Your task to perform on an android device: Go to privacy settings Image 0: 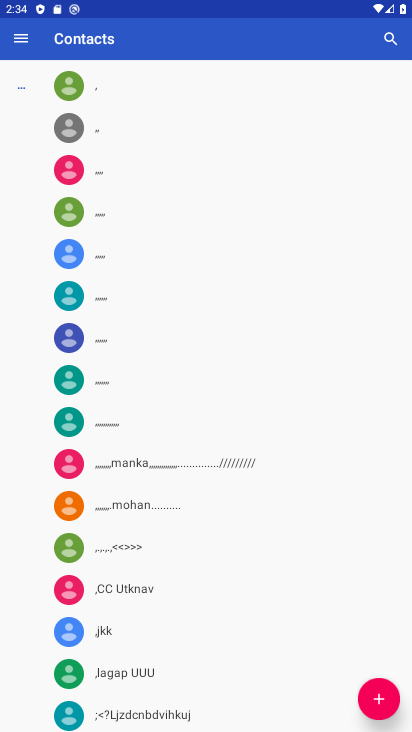
Step 0: press home button
Your task to perform on an android device: Go to privacy settings Image 1: 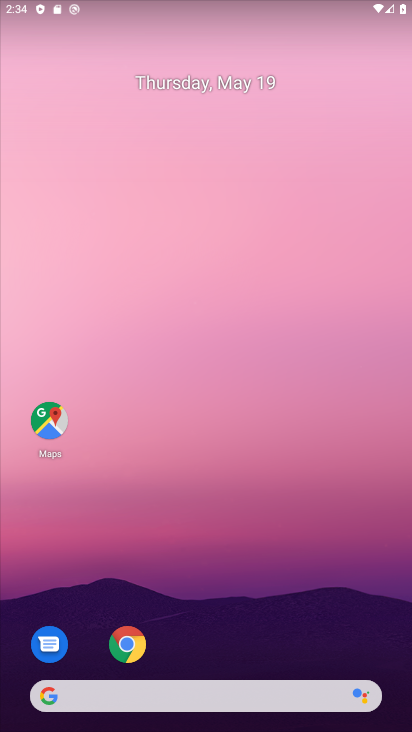
Step 1: drag from (239, 549) to (252, 201)
Your task to perform on an android device: Go to privacy settings Image 2: 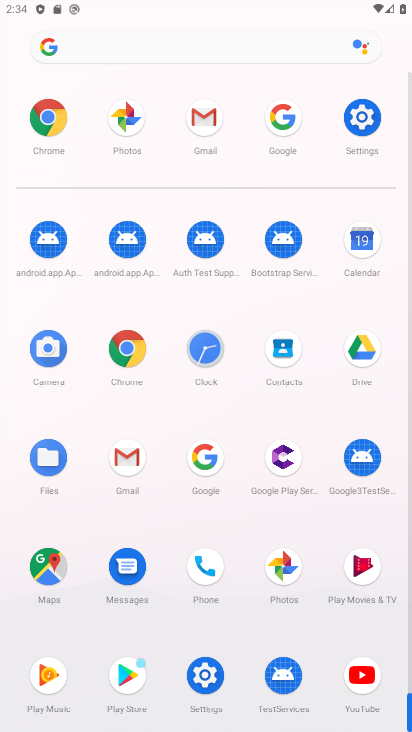
Step 2: click (351, 116)
Your task to perform on an android device: Go to privacy settings Image 3: 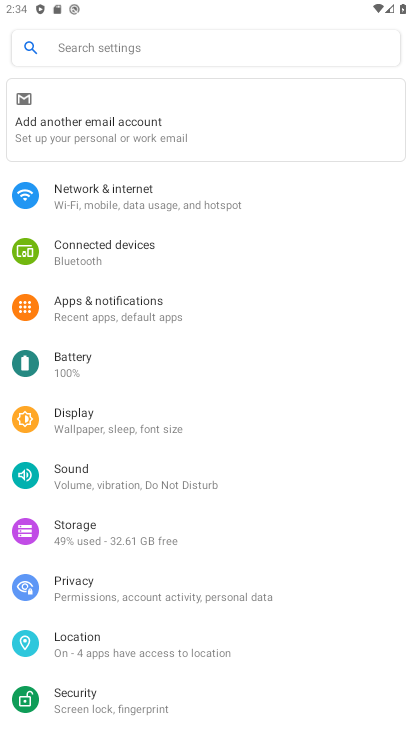
Step 3: click (192, 596)
Your task to perform on an android device: Go to privacy settings Image 4: 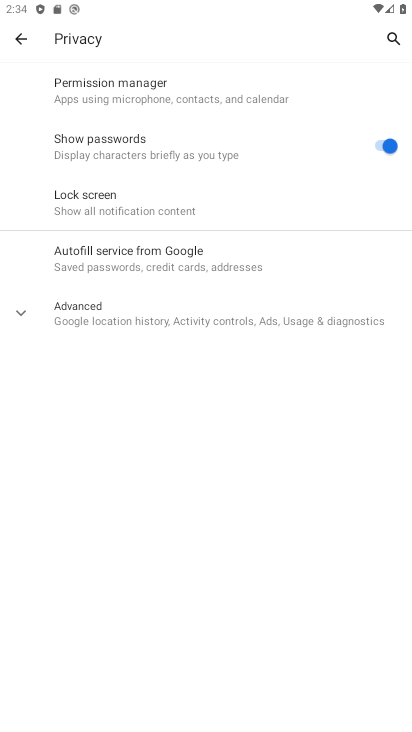
Step 4: task complete